Your task to perform on an android device: Show me productivity apps on the Play Store Image 0: 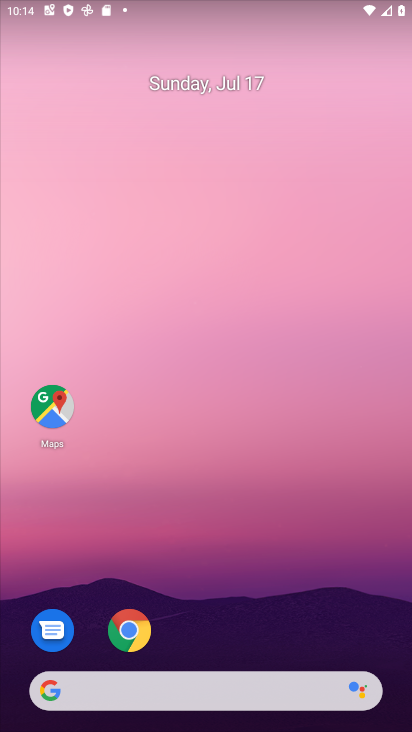
Step 0: drag from (343, 605) to (261, 214)
Your task to perform on an android device: Show me productivity apps on the Play Store Image 1: 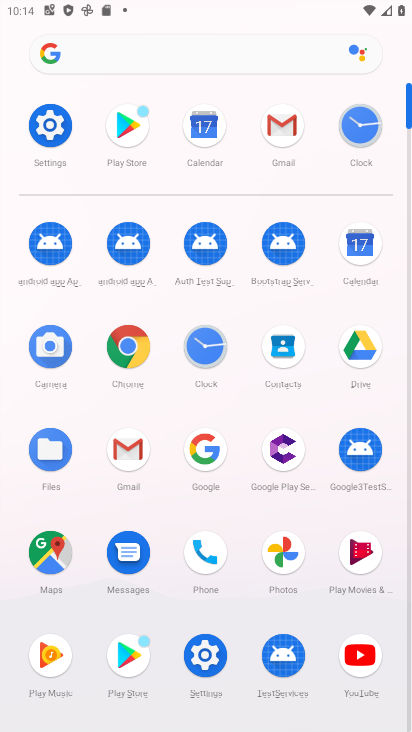
Step 1: click (133, 130)
Your task to perform on an android device: Show me productivity apps on the Play Store Image 2: 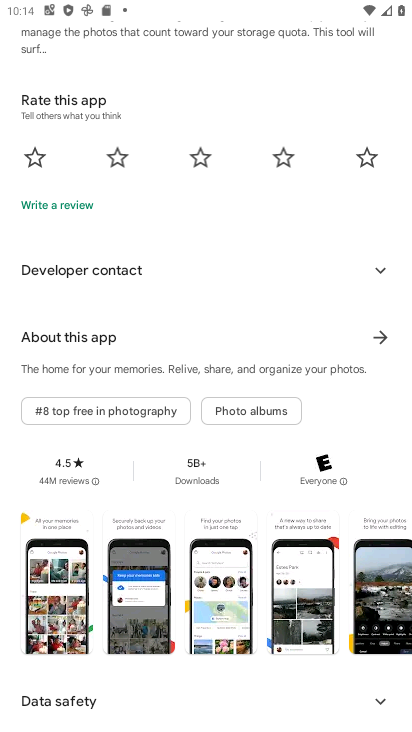
Step 2: drag from (123, 127) to (27, 434)
Your task to perform on an android device: Show me productivity apps on the Play Store Image 3: 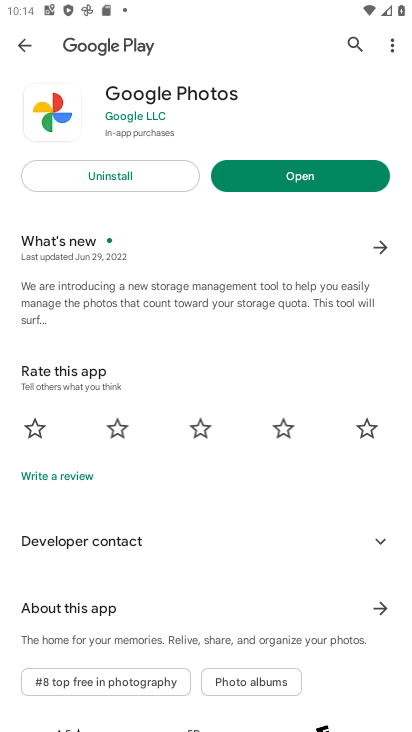
Step 3: click (13, 29)
Your task to perform on an android device: Show me productivity apps on the Play Store Image 4: 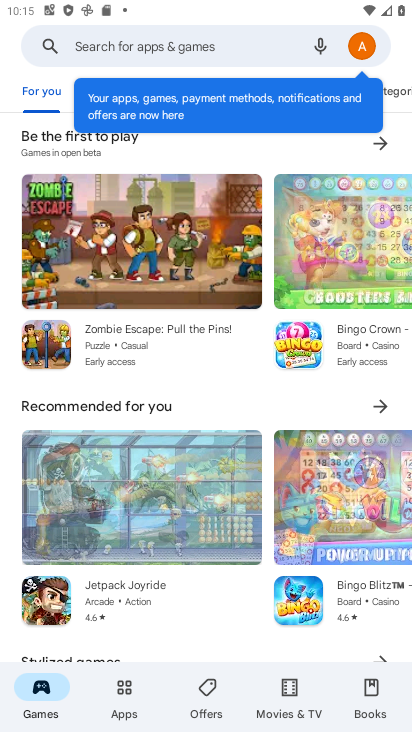
Step 4: click (115, 692)
Your task to perform on an android device: Show me productivity apps on the Play Store Image 5: 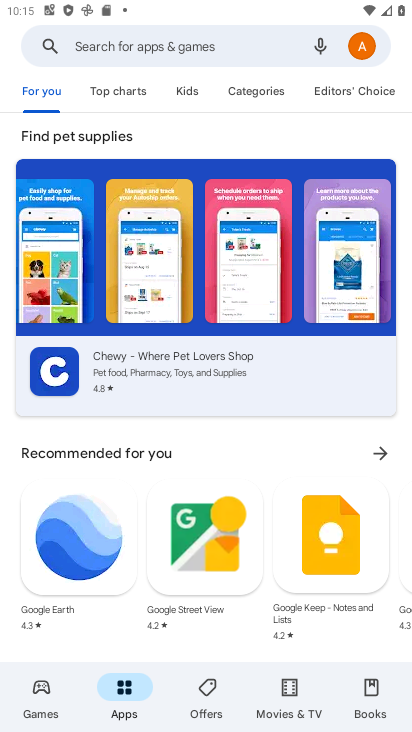
Step 5: click (130, 77)
Your task to perform on an android device: Show me productivity apps on the Play Store Image 6: 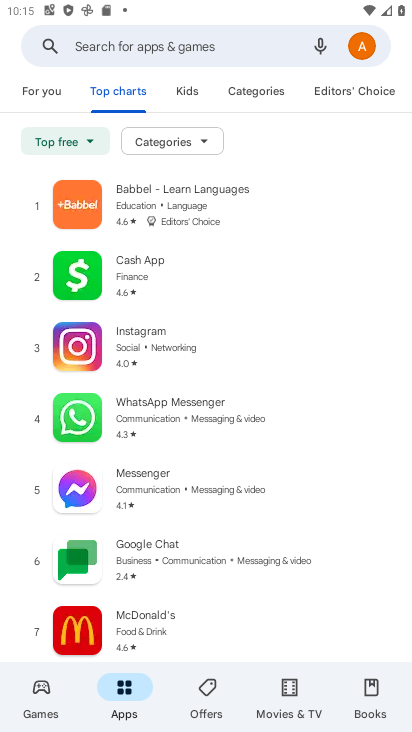
Step 6: click (175, 148)
Your task to perform on an android device: Show me productivity apps on the Play Store Image 7: 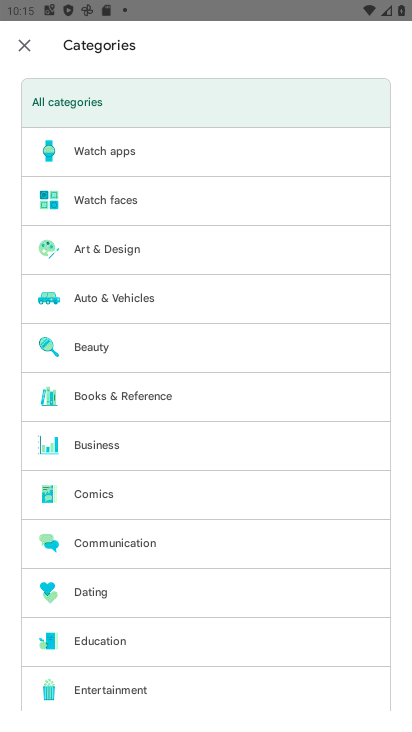
Step 7: drag from (201, 632) to (199, 99)
Your task to perform on an android device: Show me productivity apps on the Play Store Image 8: 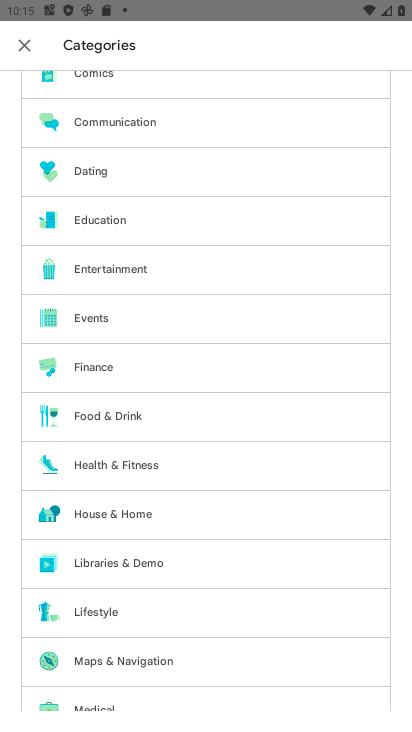
Step 8: drag from (234, 682) to (235, 135)
Your task to perform on an android device: Show me productivity apps on the Play Store Image 9: 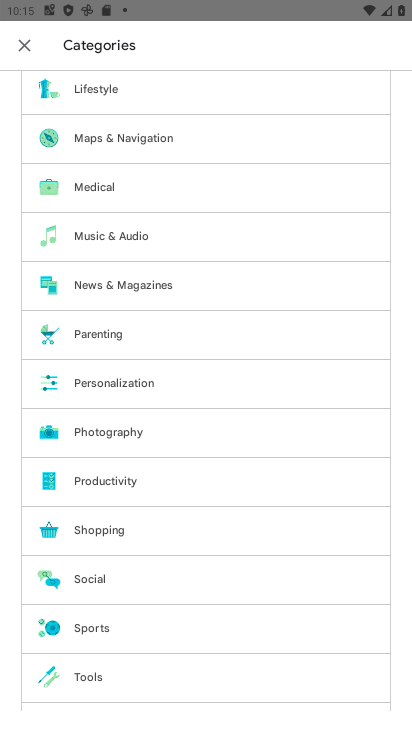
Step 9: click (178, 493)
Your task to perform on an android device: Show me productivity apps on the Play Store Image 10: 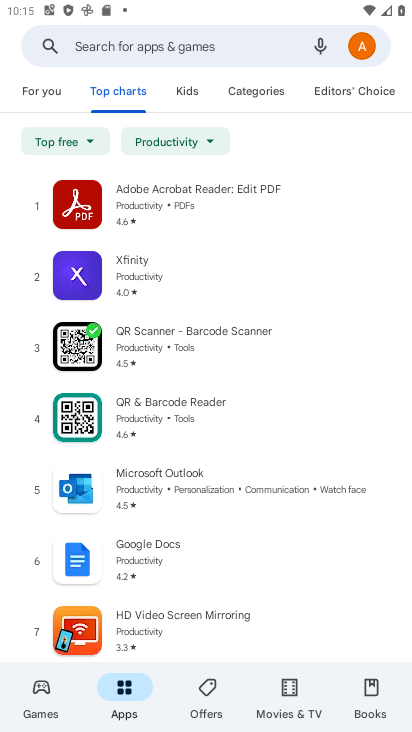
Step 10: task complete